Your task to perform on an android device: Open Wikipedia Image 0: 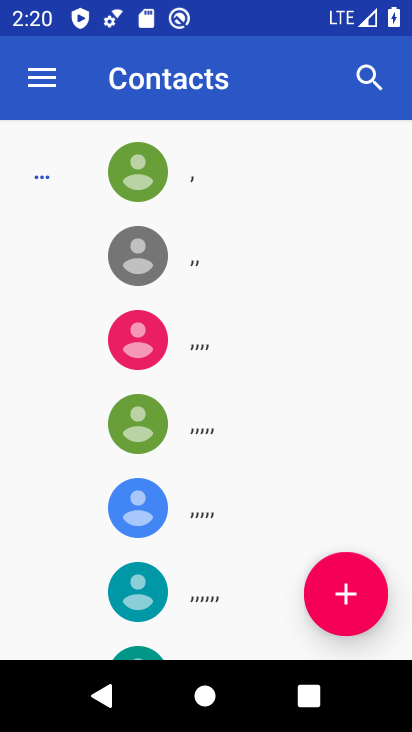
Step 0: press home button
Your task to perform on an android device: Open Wikipedia Image 1: 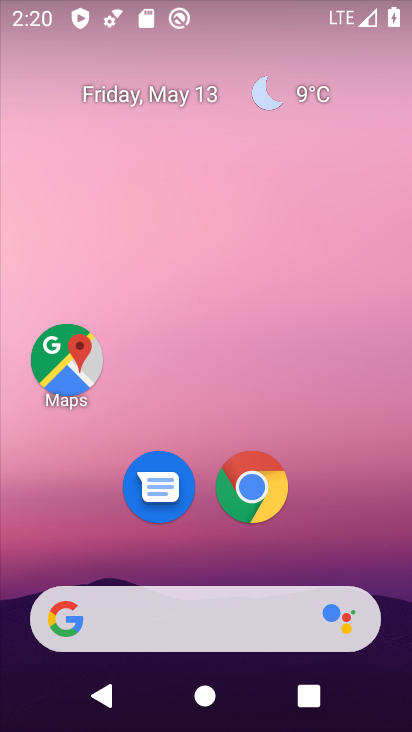
Step 1: click (257, 486)
Your task to perform on an android device: Open Wikipedia Image 2: 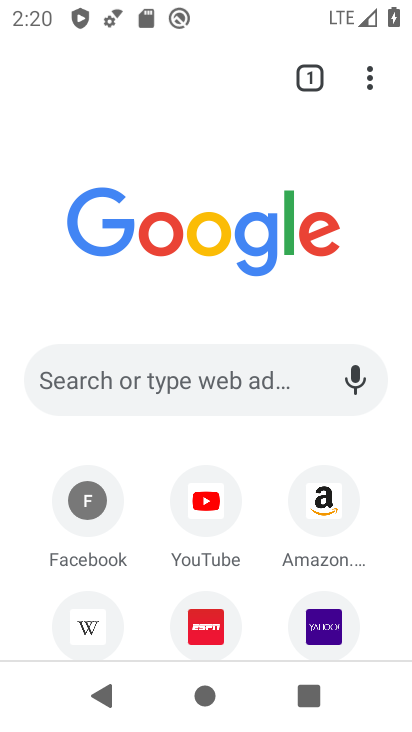
Step 2: click (98, 621)
Your task to perform on an android device: Open Wikipedia Image 3: 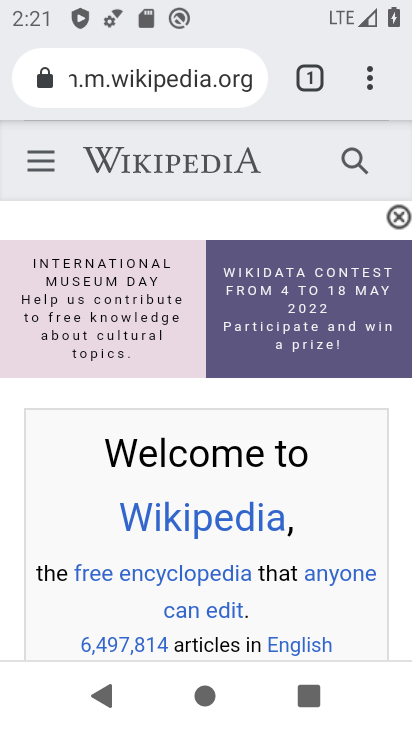
Step 3: task complete